Your task to perform on an android device: Set the phone to "Do not disturb". Image 0: 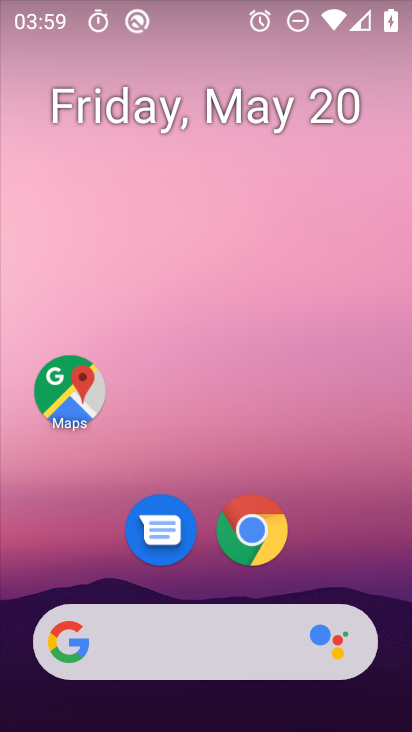
Step 0: drag from (395, 689) to (389, 303)
Your task to perform on an android device: Set the phone to "Do not disturb". Image 1: 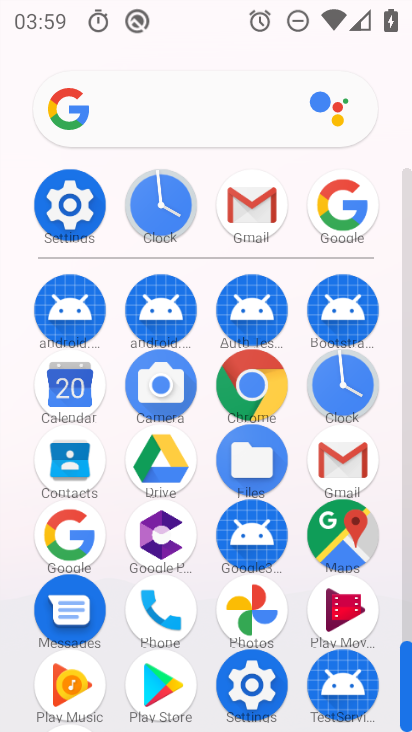
Step 1: click (56, 218)
Your task to perform on an android device: Set the phone to "Do not disturb". Image 2: 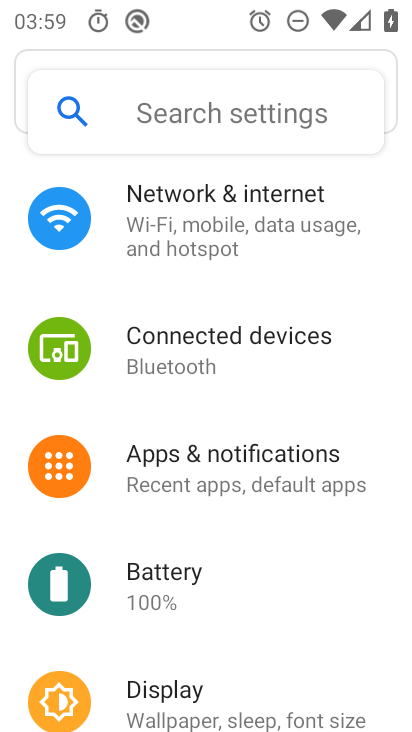
Step 2: drag from (279, 667) to (253, 304)
Your task to perform on an android device: Set the phone to "Do not disturb". Image 3: 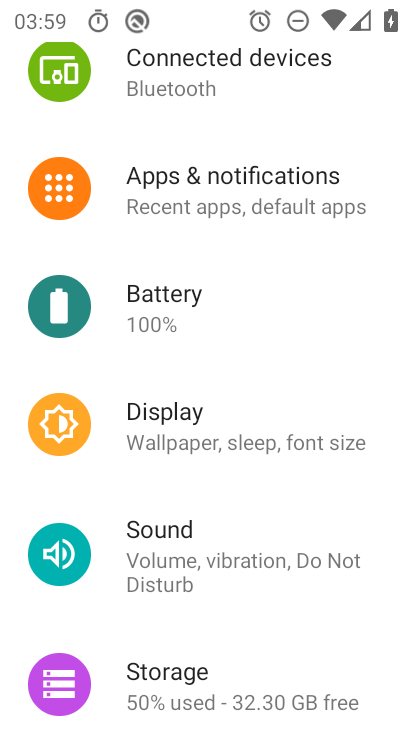
Step 3: click (159, 556)
Your task to perform on an android device: Set the phone to "Do not disturb". Image 4: 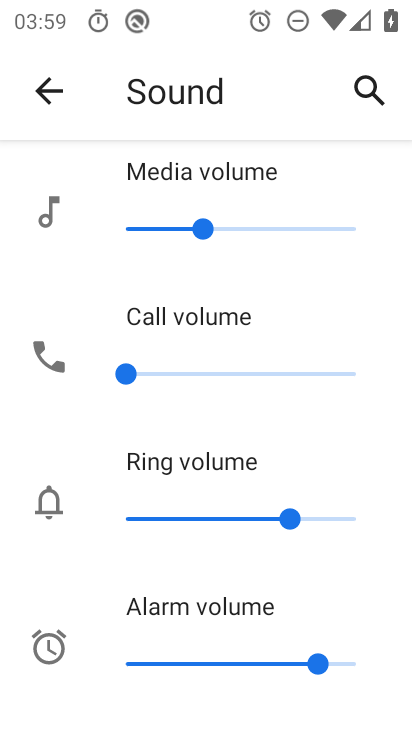
Step 4: drag from (349, 643) to (377, 299)
Your task to perform on an android device: Set the phone to "Do not disturb". Image 5: 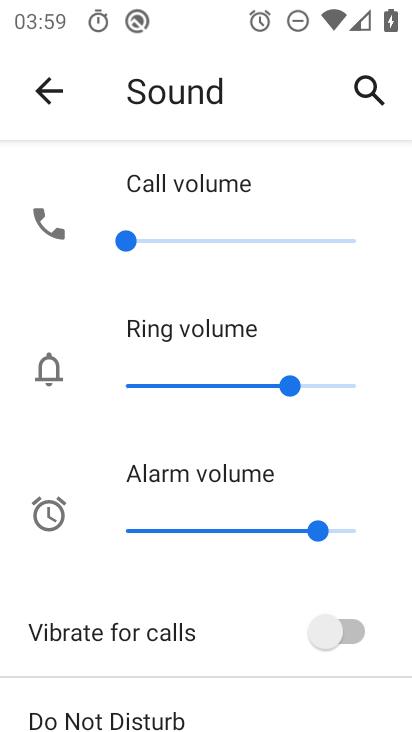
Step 5: click (235, 463)
Your task to perform on an android device: Set the phone to "Do not disturb". Image 6: 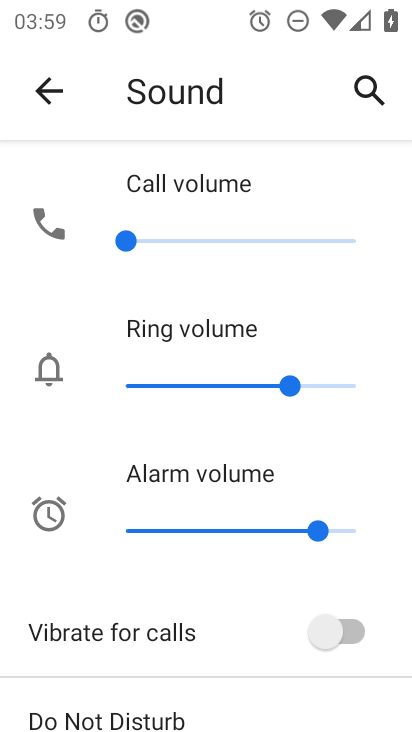
Step 6: task complete